Your task to perform on an android device: turn off improve location accuracy Image 0: 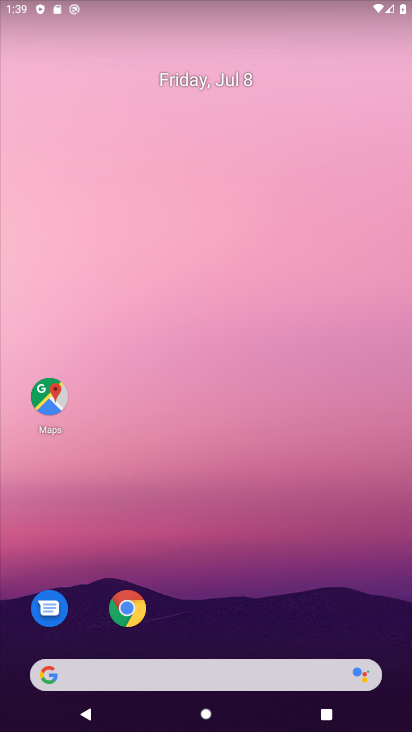
Step 0: drag from (219, 681) to (164, 69)
Your task to perform on an android device: turn off improve location accuracy Image 1: 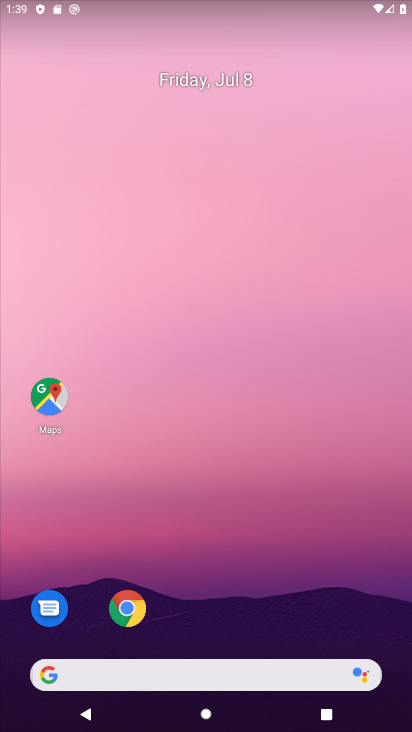
Step 1: drag from (188, 290) to (144, 21)
Your task to perform on an android device: turn off improve location accuracy Image 2: 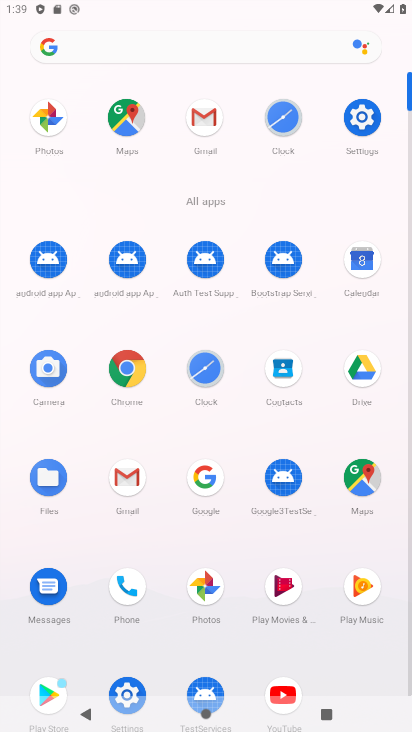
Step 2: drag from (226, 337) to (161, 98)
Your task to perform on an android device: turn off improve location accuracy Image 3: 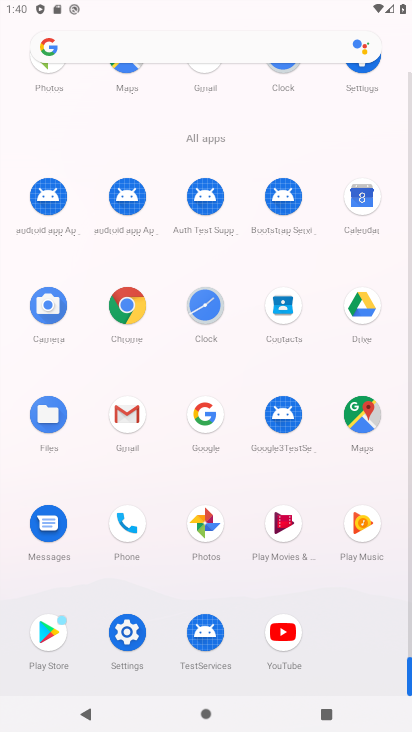
Step 3: click (123, 634)
Your task to perform on an android device: turn off improve location accuracy Image 4: 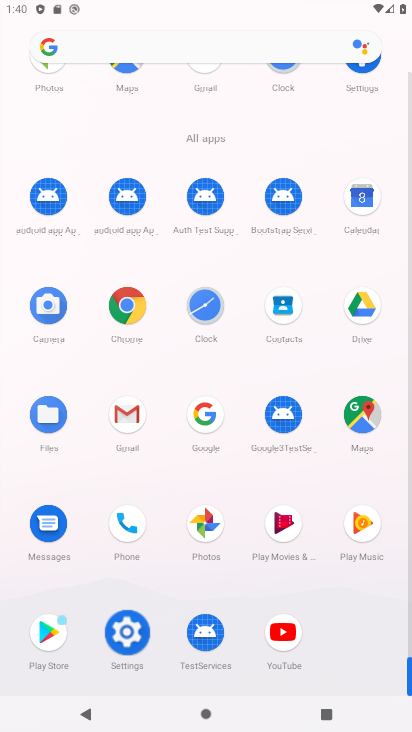
Step 4: click (121, 638)
Your task to perform on an android device: turn off improve location accuracy Image 5: 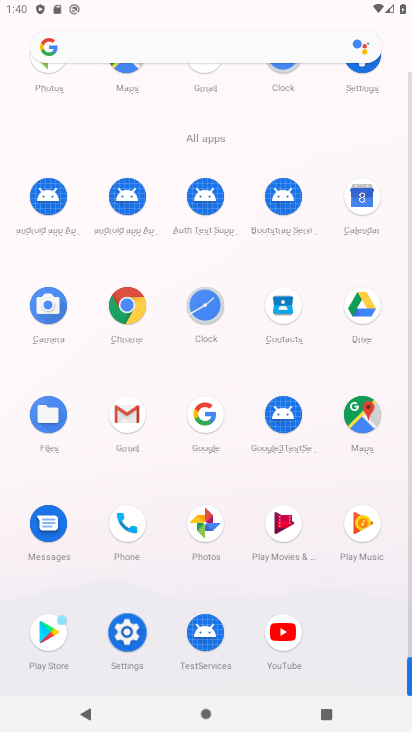
Step 5: click (130, 635)
Your task to perform on an android device: turn off improve location accuracy Image 6: 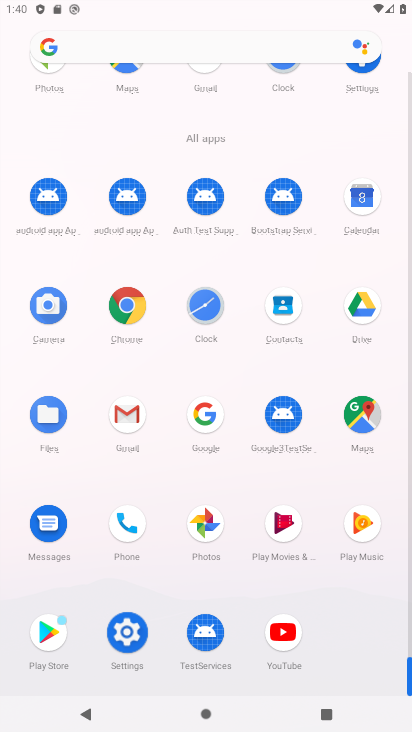
Step 6: click (130, 633)
Your task to perform on an android device: turn off improve location accuracy Image 7: 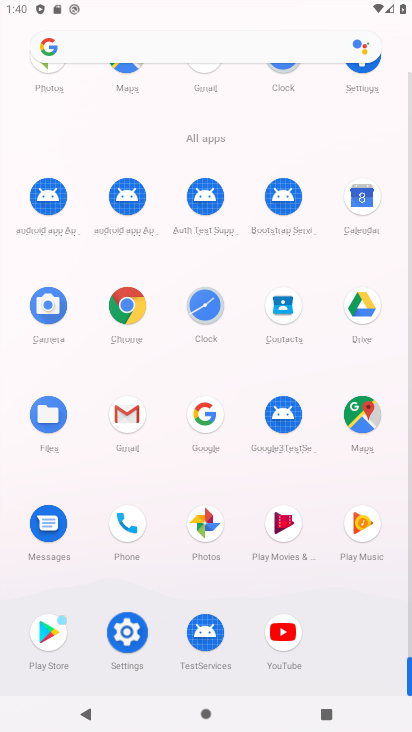
Step 7: click (136, 631)
Your task to perform on an android device: turn off improve location accuracy Image 8: 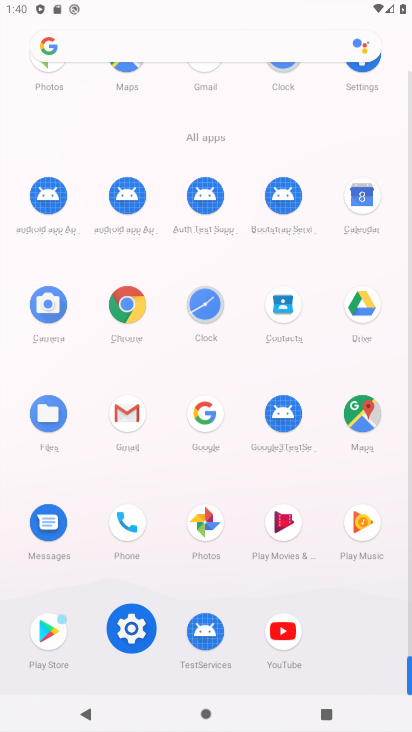
Step 8: click (134, 635)
Your task to perform on an android device: turn off improve location accuracy Image 9: 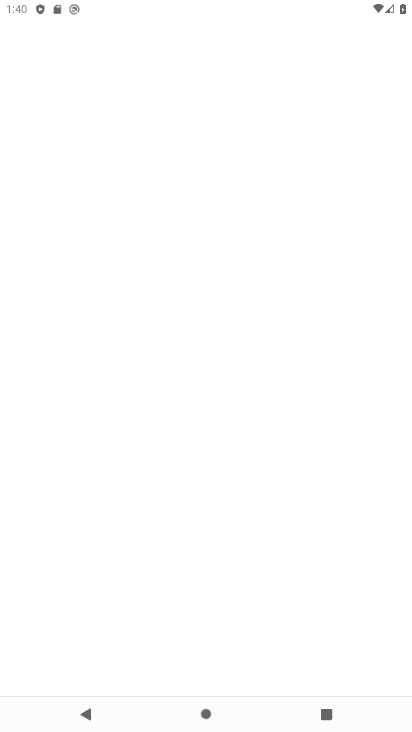
Step 9: click (125, 638)
Your task to perform on an android device: turn off improve location accuracy Image 10: 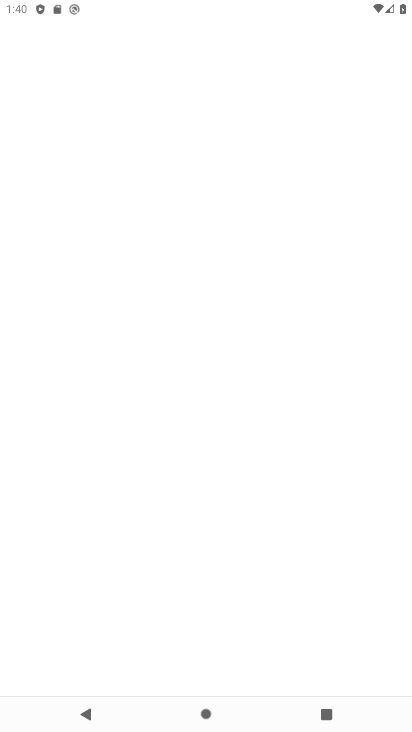
Step 10: click (123, 637)
Your task to perform on an android device: turn off improve location accuracy Image 11: 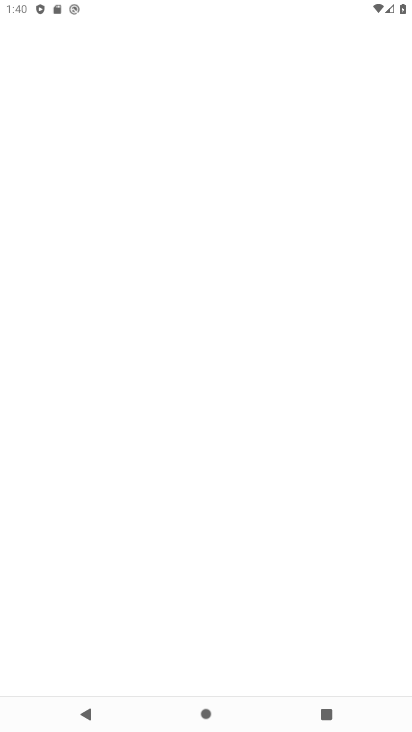
Step 11: click (123, 637)
Your task to perform on an android device: turn off improve location accuracy Image 12: 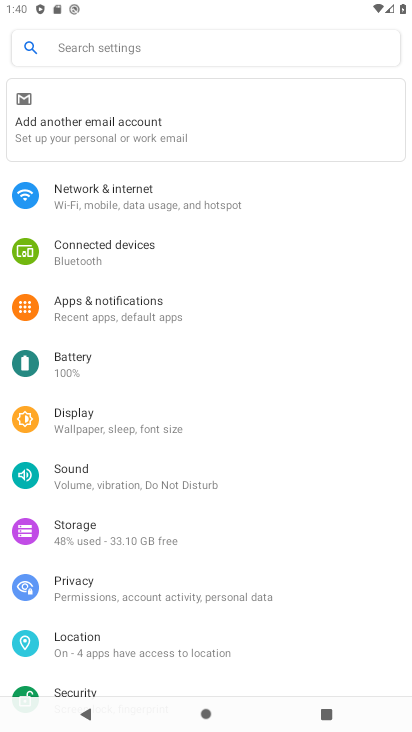
Step 12: drag from (121, 532) to (134, 198)
Your task to perform on an android device: turn off improve location accuracy Image 13: 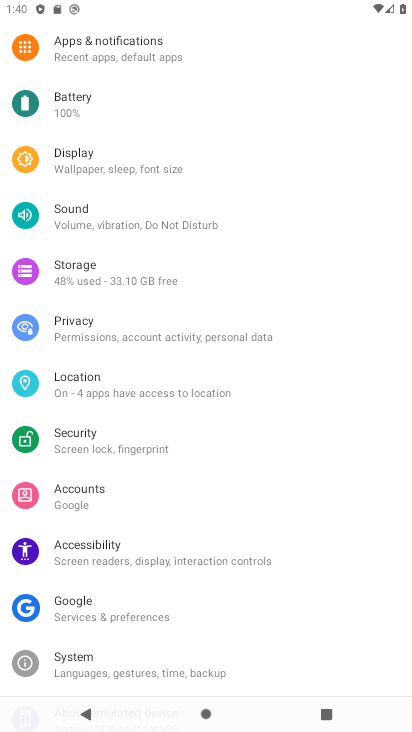
Step 13: drag from (141, 546) to (167, 260)
Your task to perform on an android device: turn off improve location accuracy Image 14: 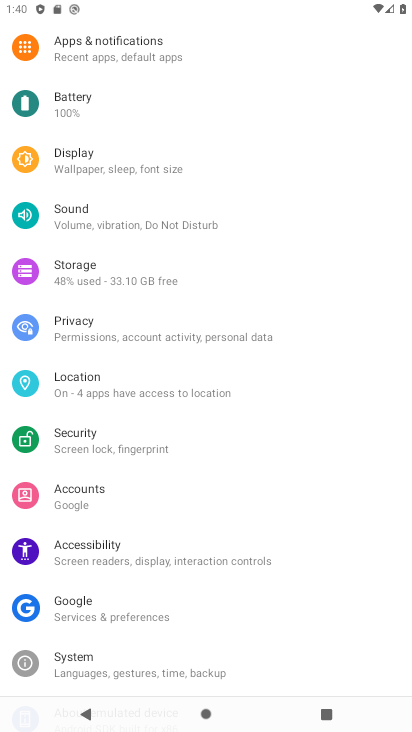
Step 14: drag from (80, 645) to (64, 313)
Your task to perform on an android device: turn off improve location accuracy Image 15: 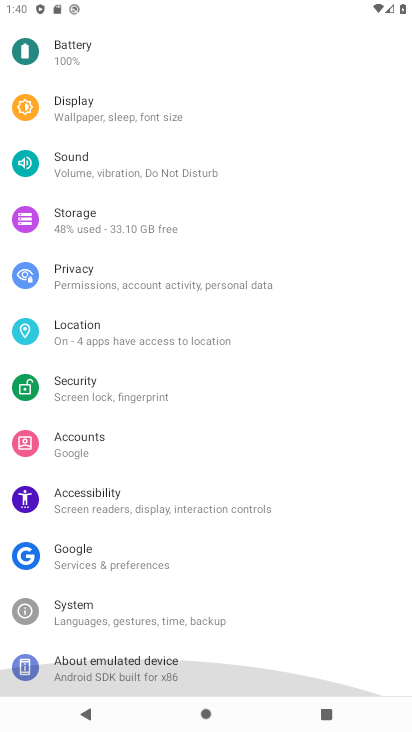
Step 15: drag from (132, 507) to (162, 347)
Your task to perform on an android device: turn off improve location accuracy Image 16: 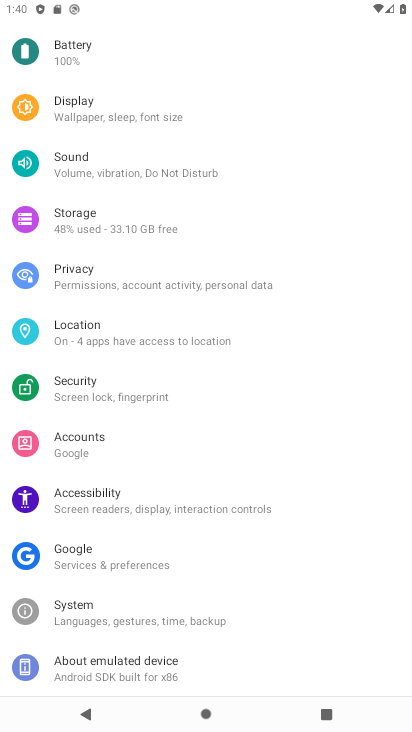
Step 16: click (105, 330)
Your task to perform on an android device: turn off improve location accuracy Image 17: 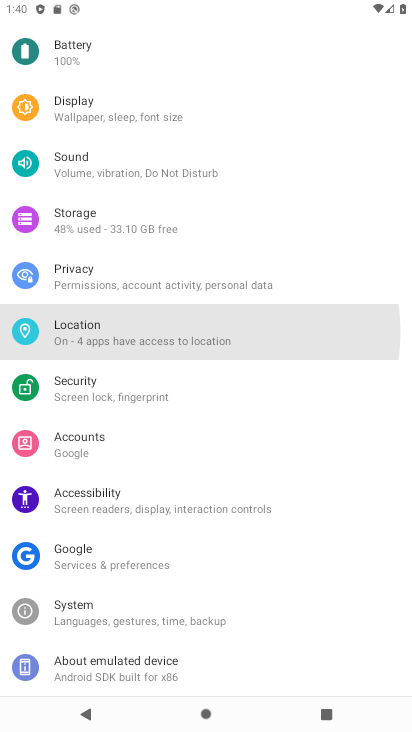
Step 17: click (105, 330)
Your task to perform on an android device: turn off improve location accuracy Image 18: 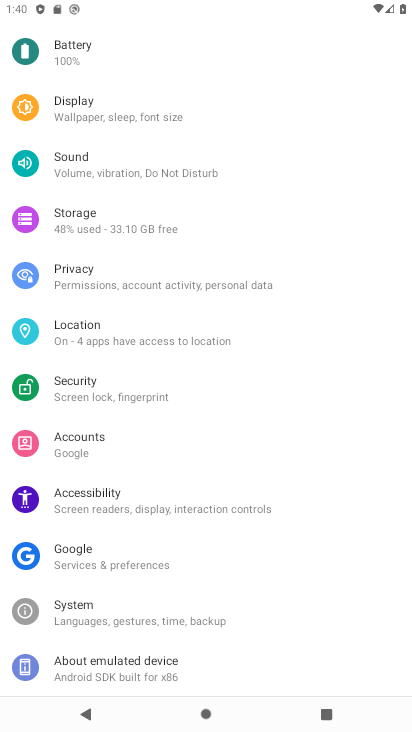
Step 18: click (104, 330)
Your task to perform on an android device: turn off improve location accuracy Image 19: 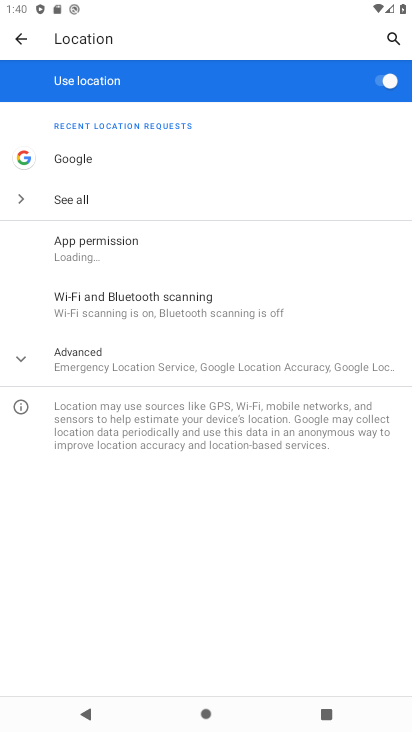
Step 19: click (99, 362)
Your task to perform on an android device: turn off improve location accuracy Image 20: 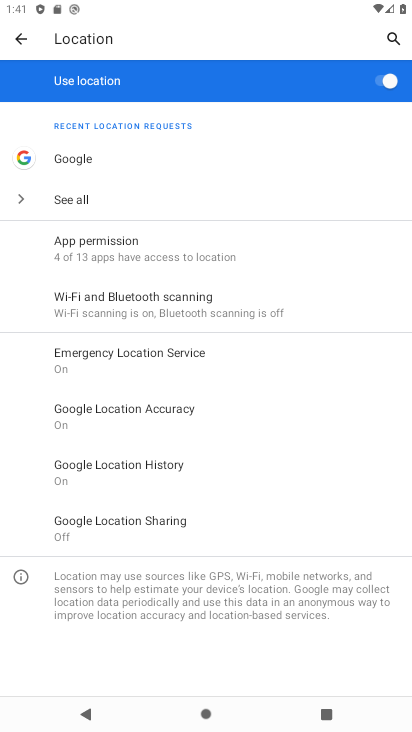
Step 20: click (92, 402)
Your task to perform on an android device: turn off improve location accuracy Image 21: 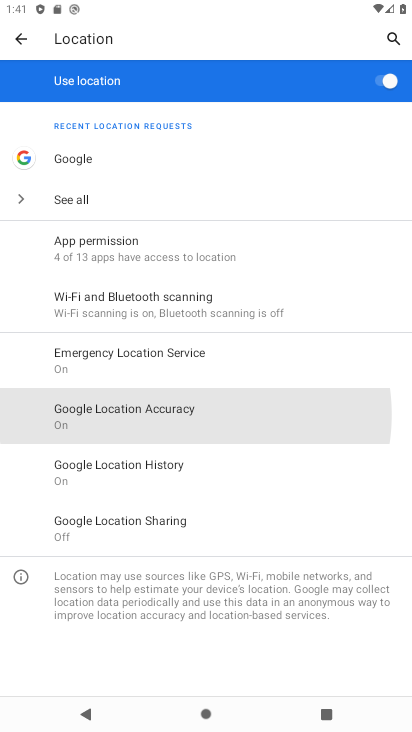
Step 21: click (90, 403)
Your task to perform on an android device: turn off improve location accuracy Image 22: 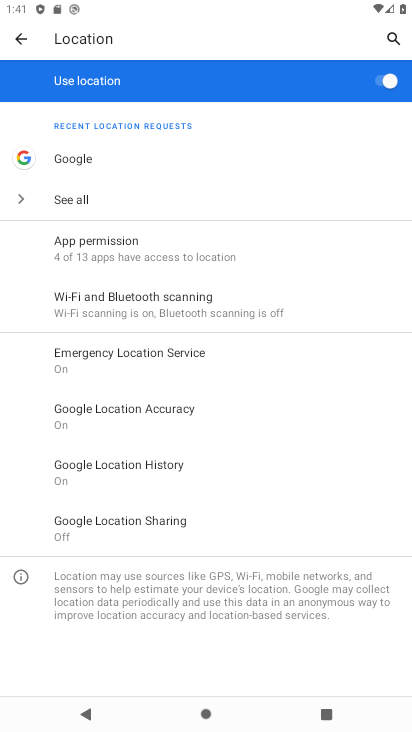
Step 22: click (90, 403)
Your task to perform on an android device: turn off improve location accuracy Image 23: 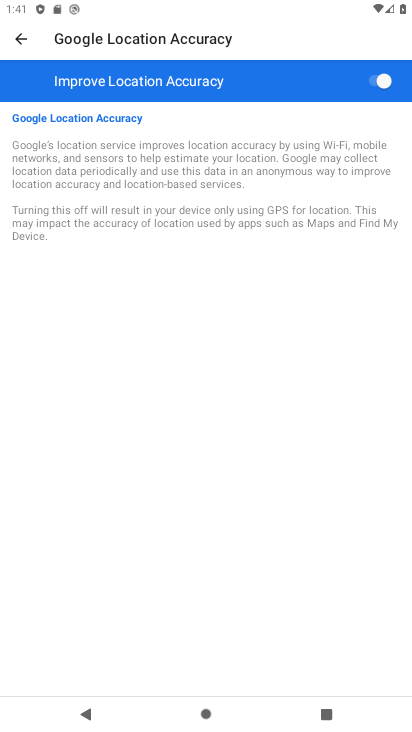
Step 23: click (382, 79)
Your task to perform on an android device: turn off improve location accuracy Image 24: 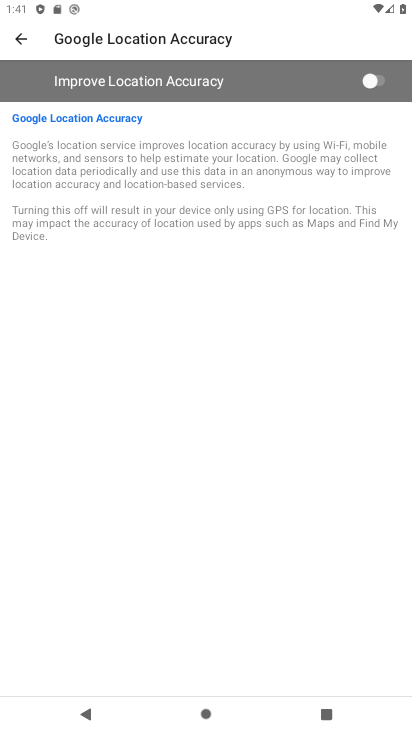
Step 24: task complete